Your task to perform on an android device: toggle priority inbox in the gmail app Image 0: 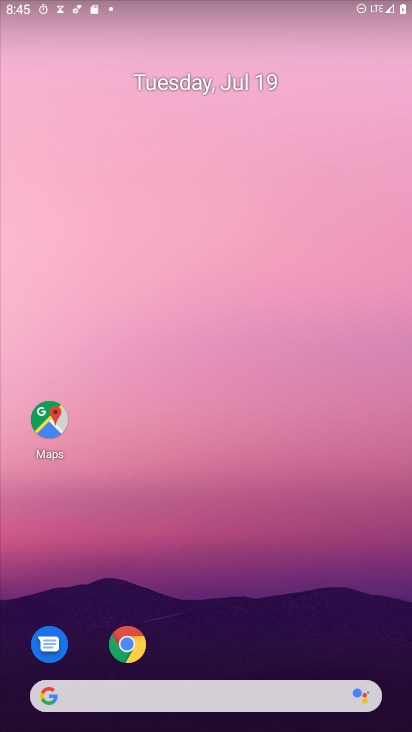
Step 0: drag from (133, 370) to (235, 178)
Your task to perform on an android device: toggle priority inbox in the gmail app Image 1: 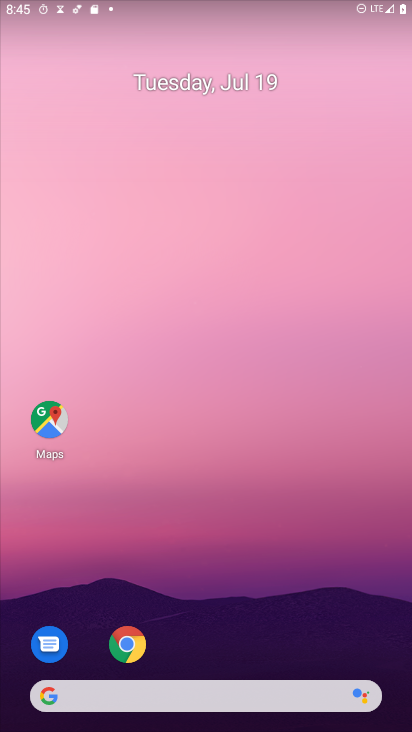
Step 1: drag from (19, 720) to (226, 19)
Your task to perform on an android device: toggle priority inbox in the gmail app Image 2: 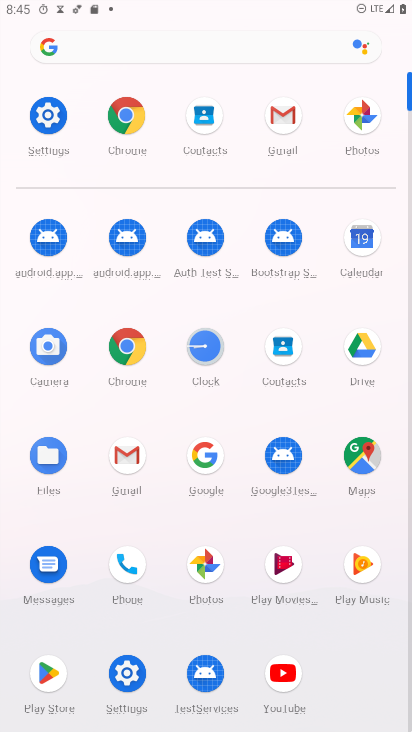
Step 2: click (140, 459)
Your task to perform on an android device: toggle priority inbox in the gmail app Image 3: 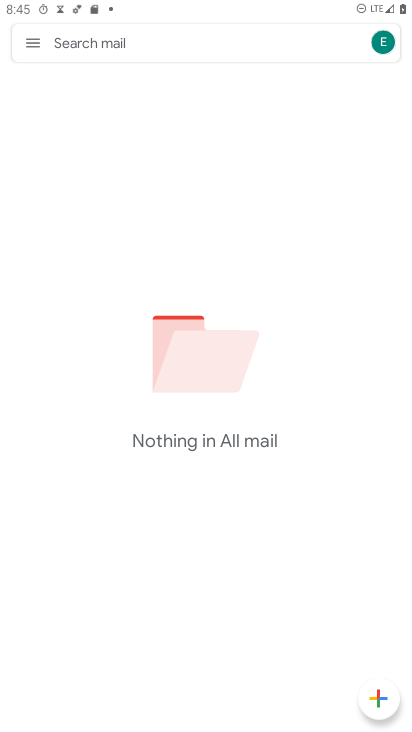
Step 3: click (35, 46)
Your task to perform on an android device: toggle priority inbox in the gmail app Image 4: 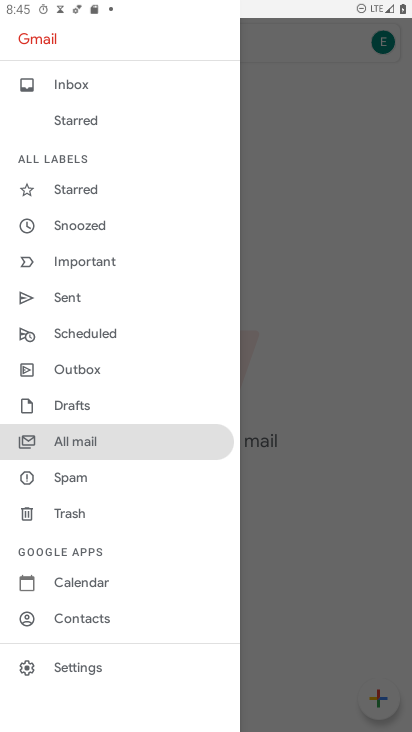
Step 4: click (79, 668)
Your task to perform on an android device: toggle priority inbox in the gmail app Image 5: 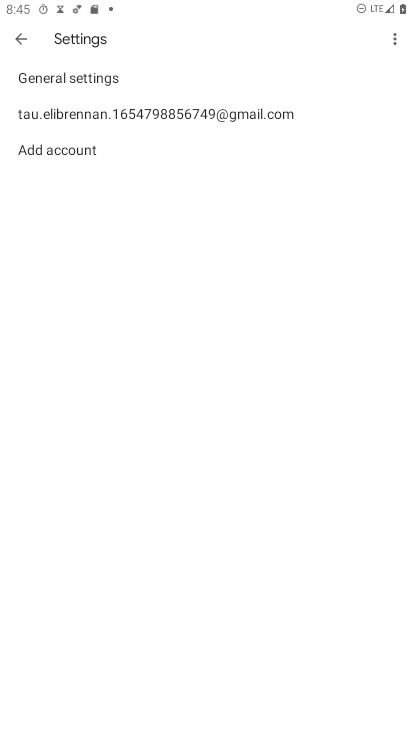
Step 5: click (98, 110)
Your task to perform on an android device: toggle priority inbox in the gmail app Image 6: 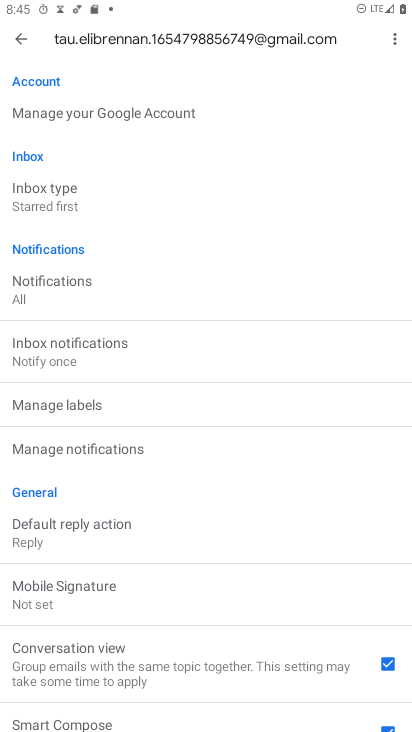
Step 6: click (50, 204)
Your task to perform on an android device: toggle priority inbox in the gmail app Image 7: 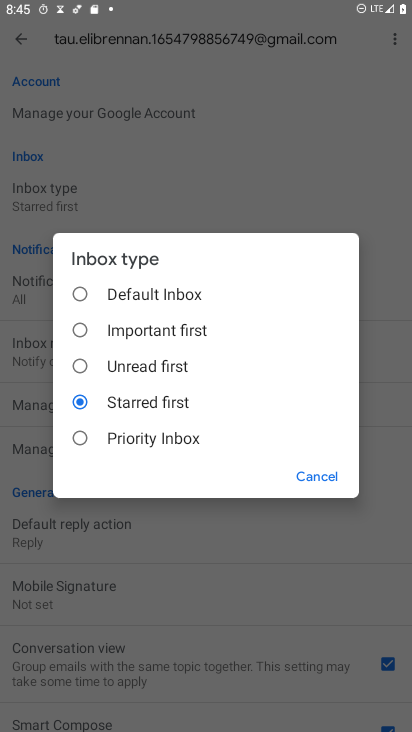
Step 7: click (83, 435)
Your task to perform on an android device: toggle priority inbox in the gmail app Image 8: 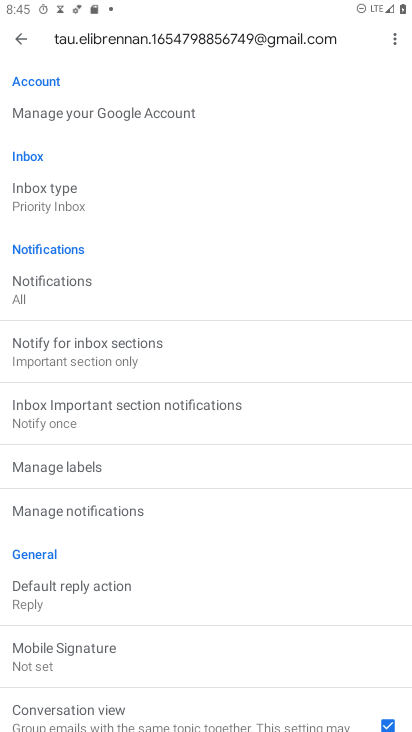
Step 8: task complete